Your task to perform on an android device: Go to Amazon Image 0: 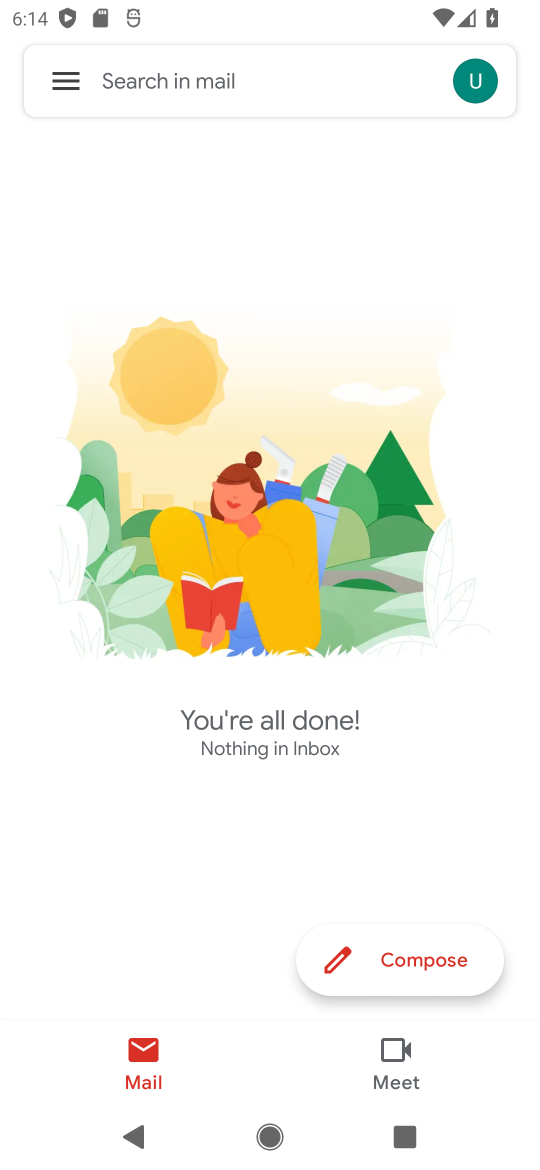
Step 0: press home button
Your task to perform on an android device: Go to Amazon Image 1: 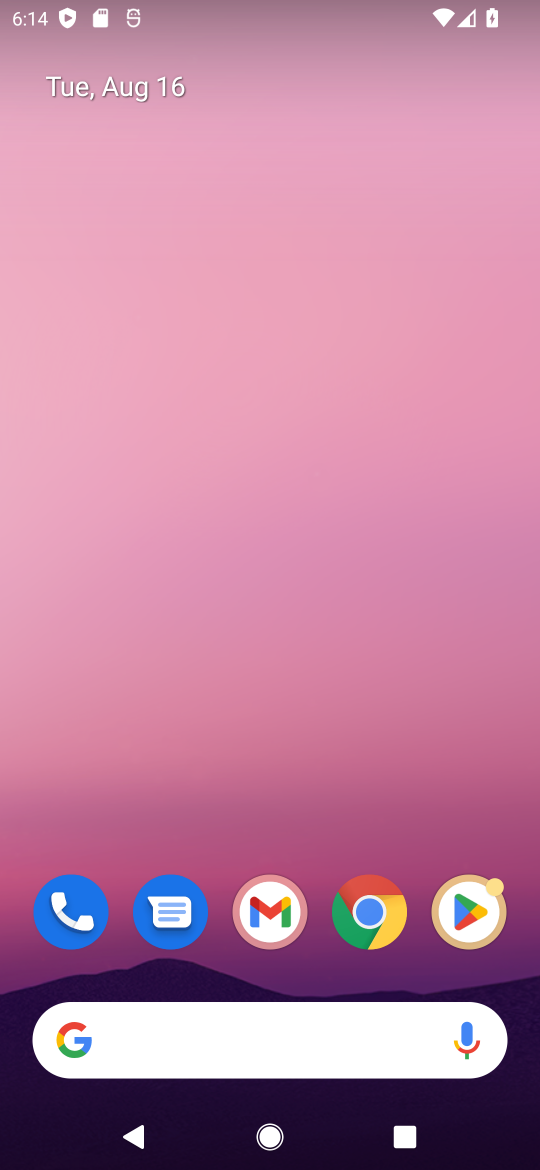
Step 1: click (375, 913)
Your task to perform on an android device: Go to Amazon Image 2: 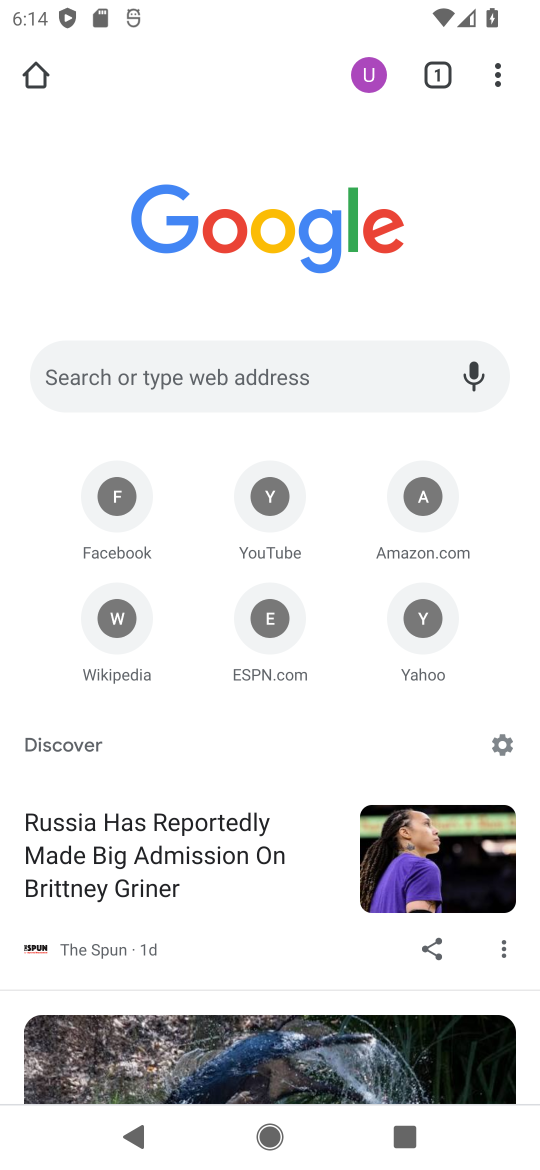
Step 2: click (186, 375)
Your task to perform on an android device: Go to Amazon Image 3: 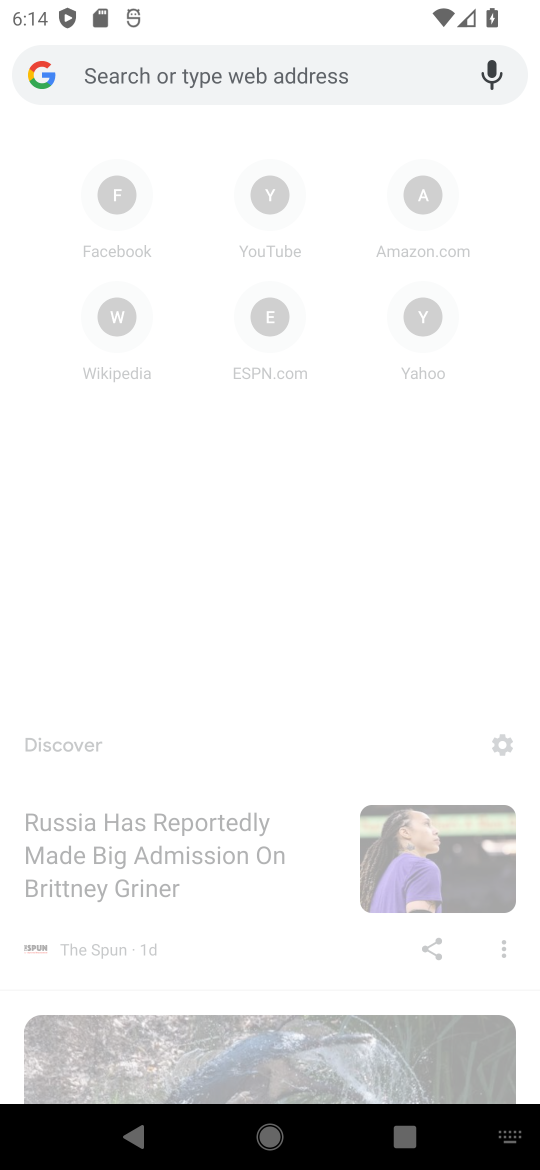
Step 3: type "amazon"
Your task to perform on an android device: Go to Amazon Image 4: 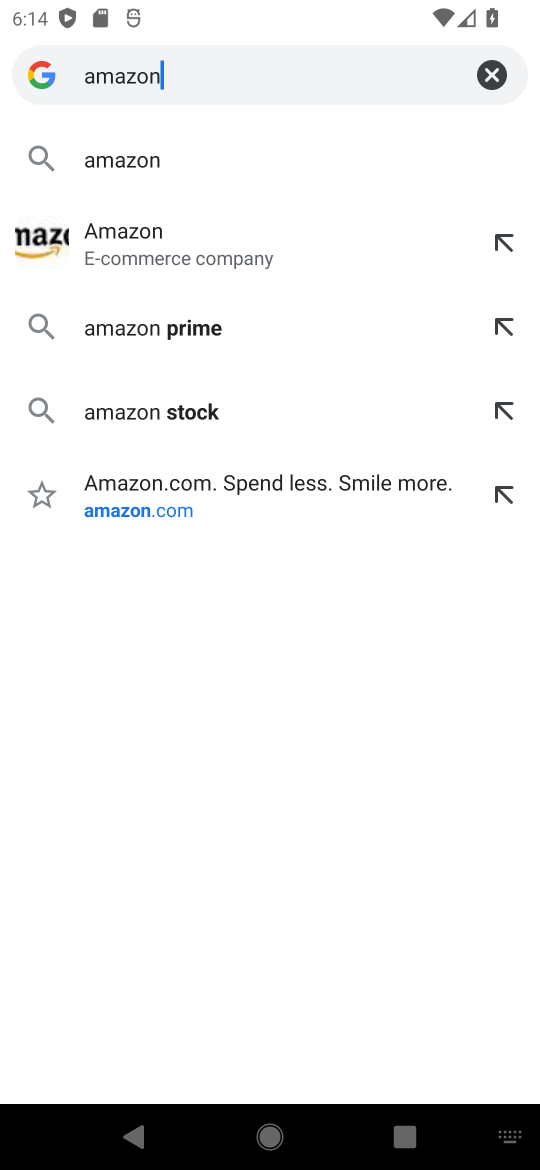
Step 4: click (128, 168)
Your task to perform on an android device: Go to Amazon Image 5: 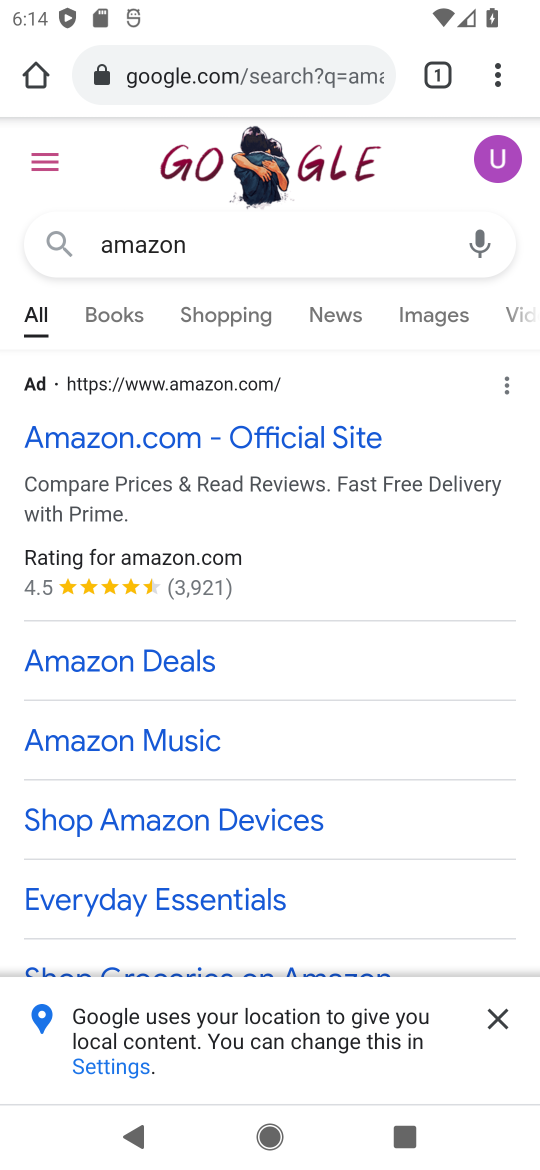
Step 5: click (125, 432)
Your task to perform on an android device: Go to Amazon Image 6: 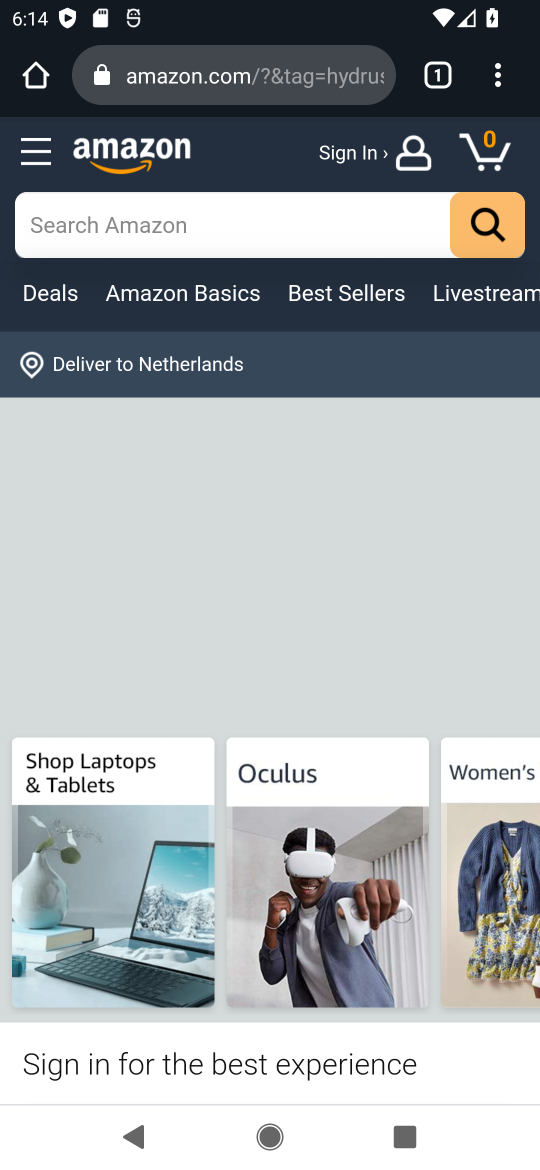
Step 6: task complete